Your task to perform on an android device: turn on data saver in the chrome app Image 0: 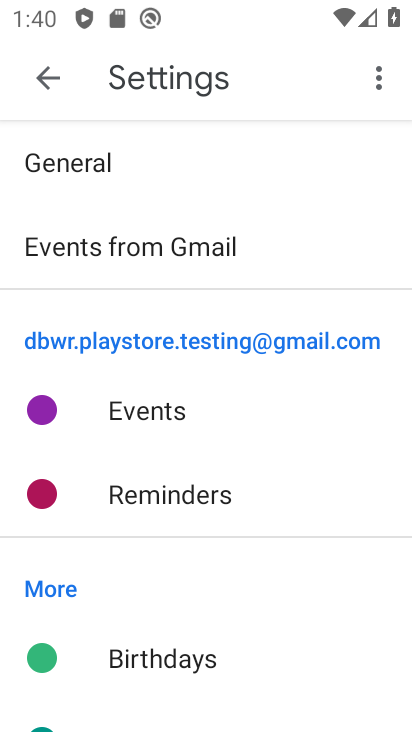
Step 0: press home button
Your task to perform on an android device: turn on data saver in the chrome app Image 1: 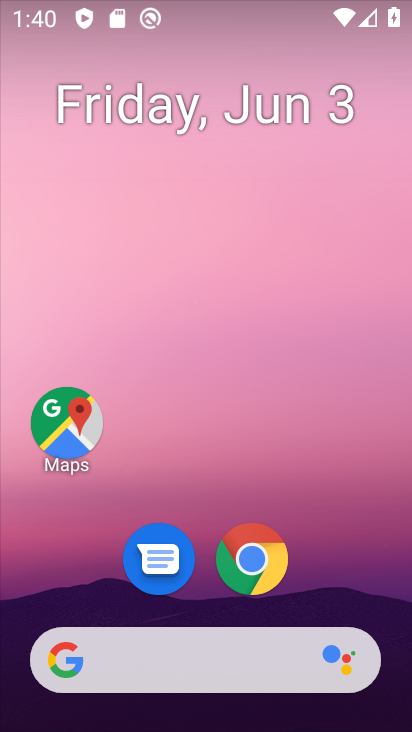
Step 1: click (278, 560)
Your task to perform on an android device: turn on data saver in the chrome app Image 2: 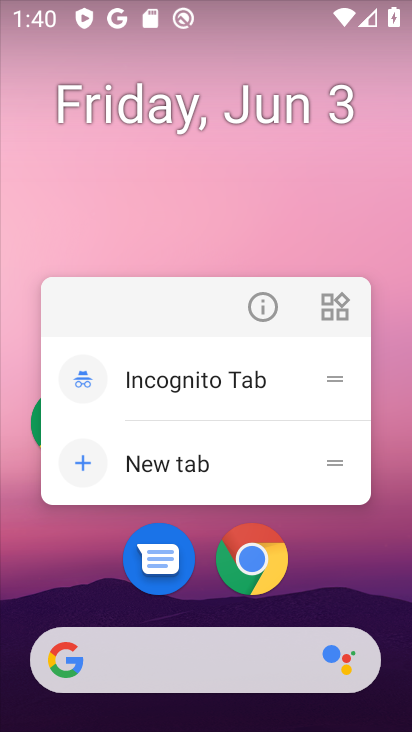
Step 2: click (261, 565)
Your task to perform on an android device: turn on data saver in the chrome app Image 3: 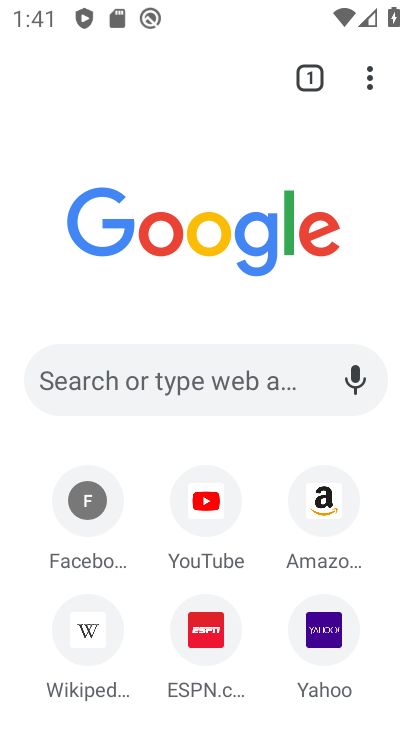
Step 3: click (364, 90)
Your task to perform on an android device: turn on data saver in the chrome app Image 4: 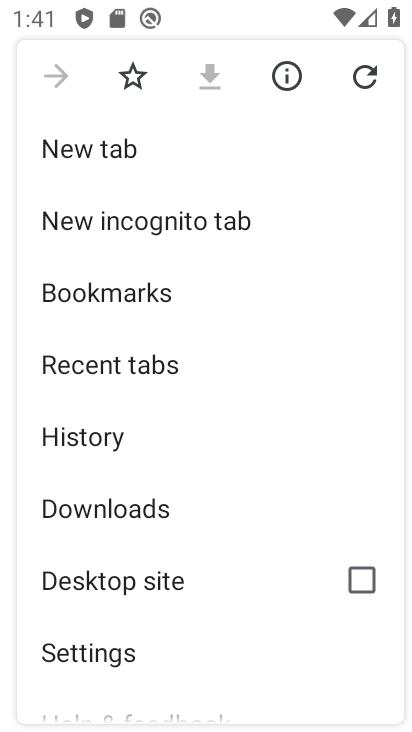
Step 4: click (125, 658)
Your task to perform on an android device: turn on data saver in the chrome app Image 5: 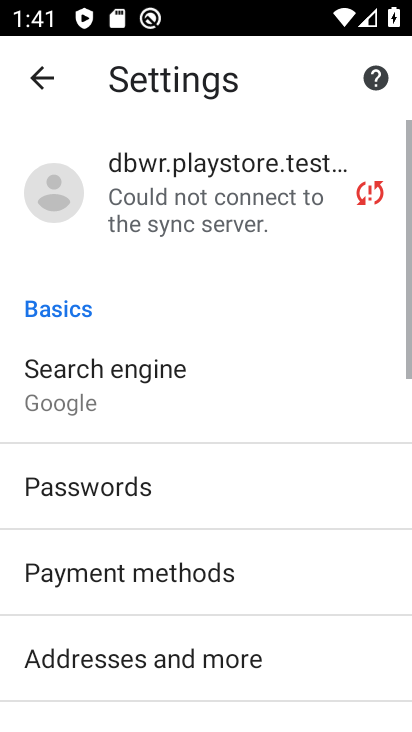
Step 5: drag from (132, 646) to (356, 65)
Your task to perform on an android device: turn on data saver in the chrome app Image 6: 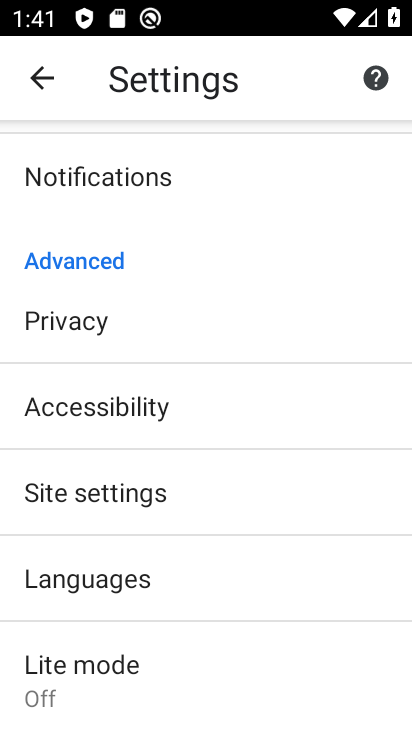
Step 6: click (151, 684)
Your task to perform on an android device: turn on data saver in the chrome app Image 7: 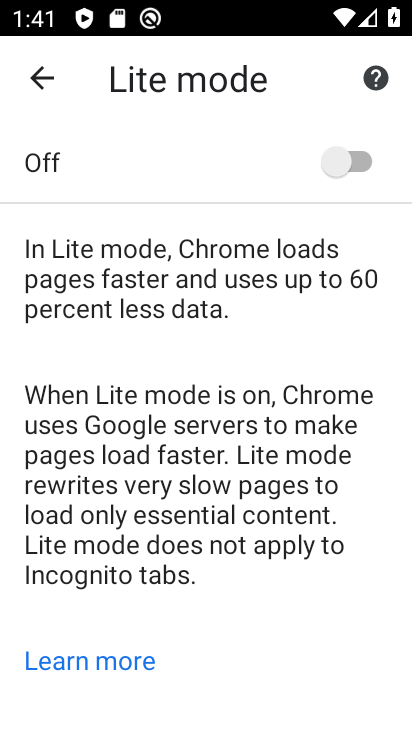
Step 7: click (349, 162)
Your task to perform on an android device: turn on data saver in the chrome app Image 8: 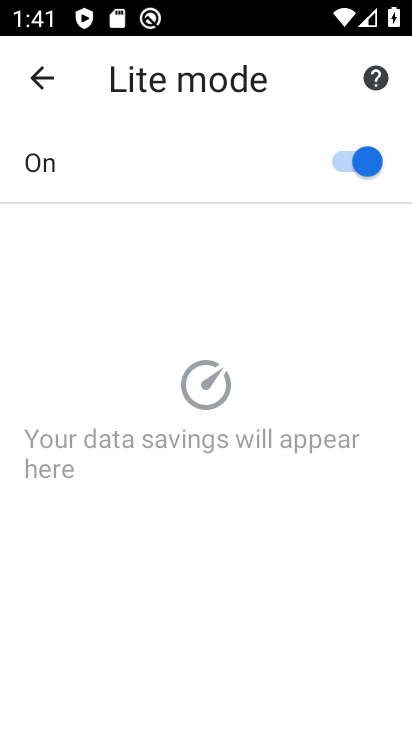
Step 8: task complete